Your task to perform on an android device: Open CNN.com Image 0: 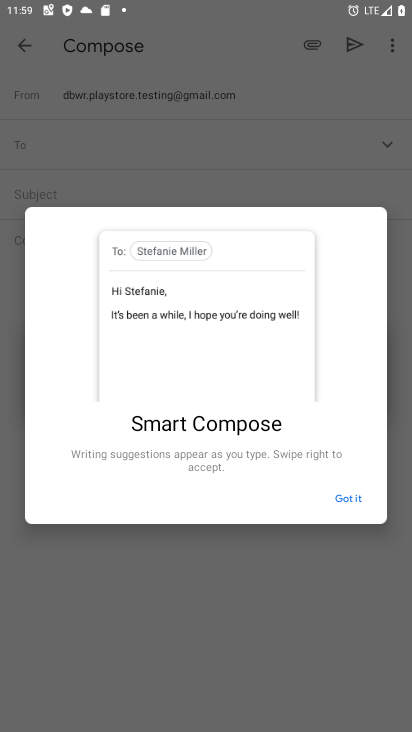
Step 0: press home button
Your task to perform on an android device: Open CNN.com Image 1: 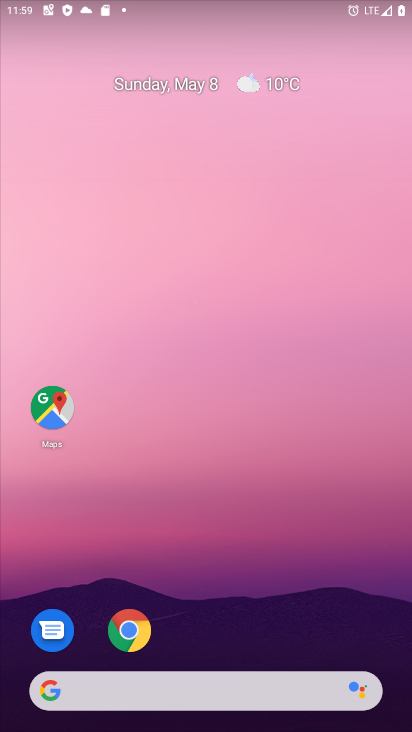
Step 1: drag from (364, 613) to (256, 13)
Your task to perform on an android device: Open CNN.com Image 2: 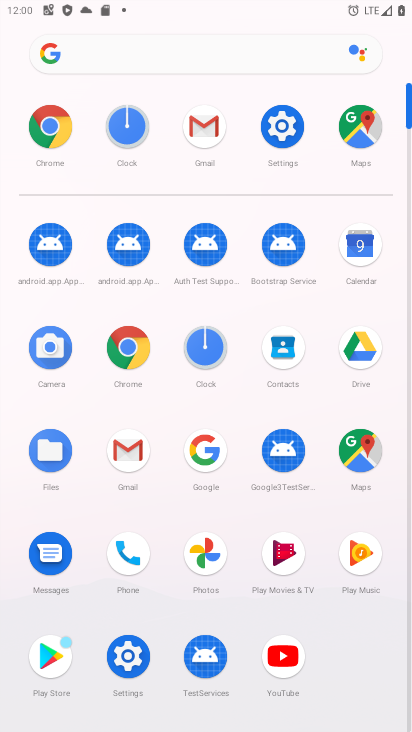
Step 2: click (48, 134)
Your task to perform on an android device: Open CNN.com Image 3: 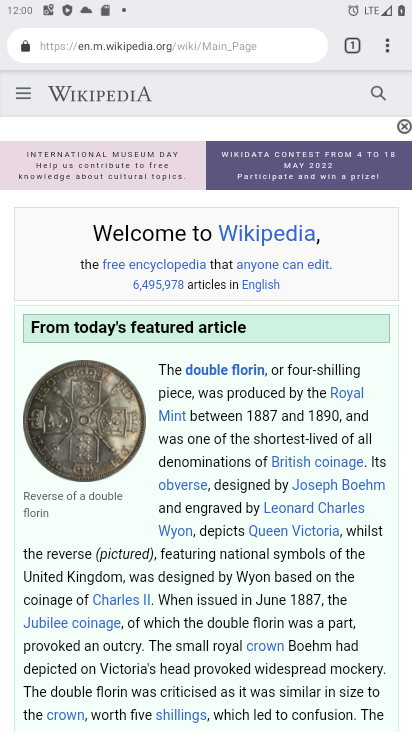
Step 3: press back button
Your task to perform on an android device: Open CNN.com Image 4: 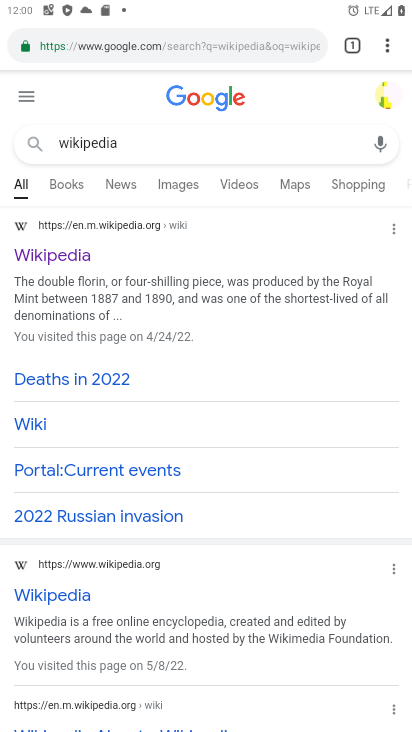
Step 4: press back button
Your task to perform on an android device: Open CNN.com Image 5: 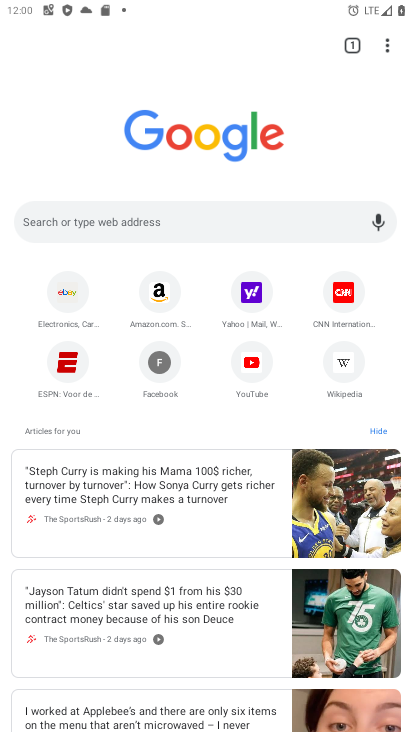
Step 5: click (92, 219)
Your task to perform on an android device: Open CNN.com Image 6: 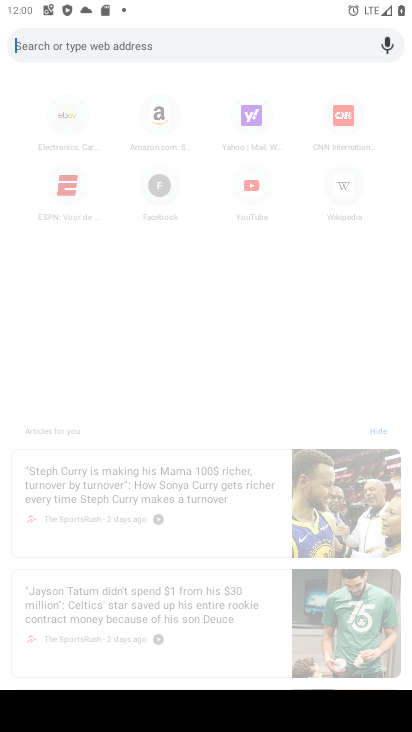
Step 6: type "cnn.com"
Your task to perform on an android device: Open CNN.com Image 7: 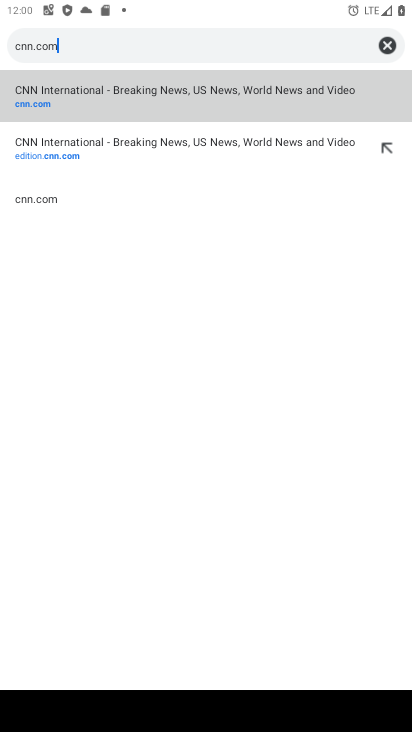
Step 7: click (138, 115)
Your task to perform on an android device: Open CNN.com Image 8: 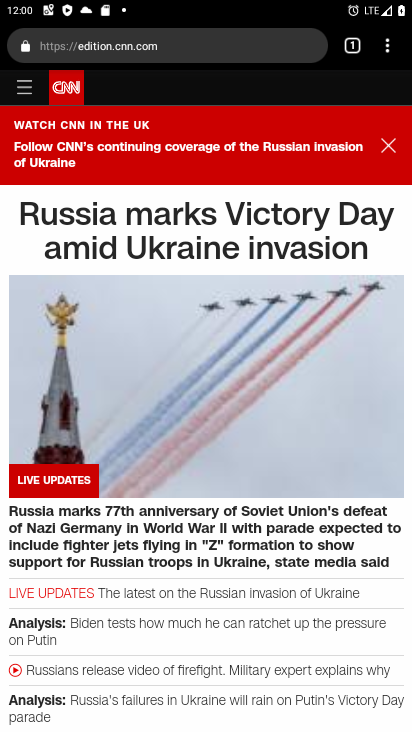
Step 8: task complete